Your task to perform on an android device: View the shopping cart on amazon.com. Image 0: 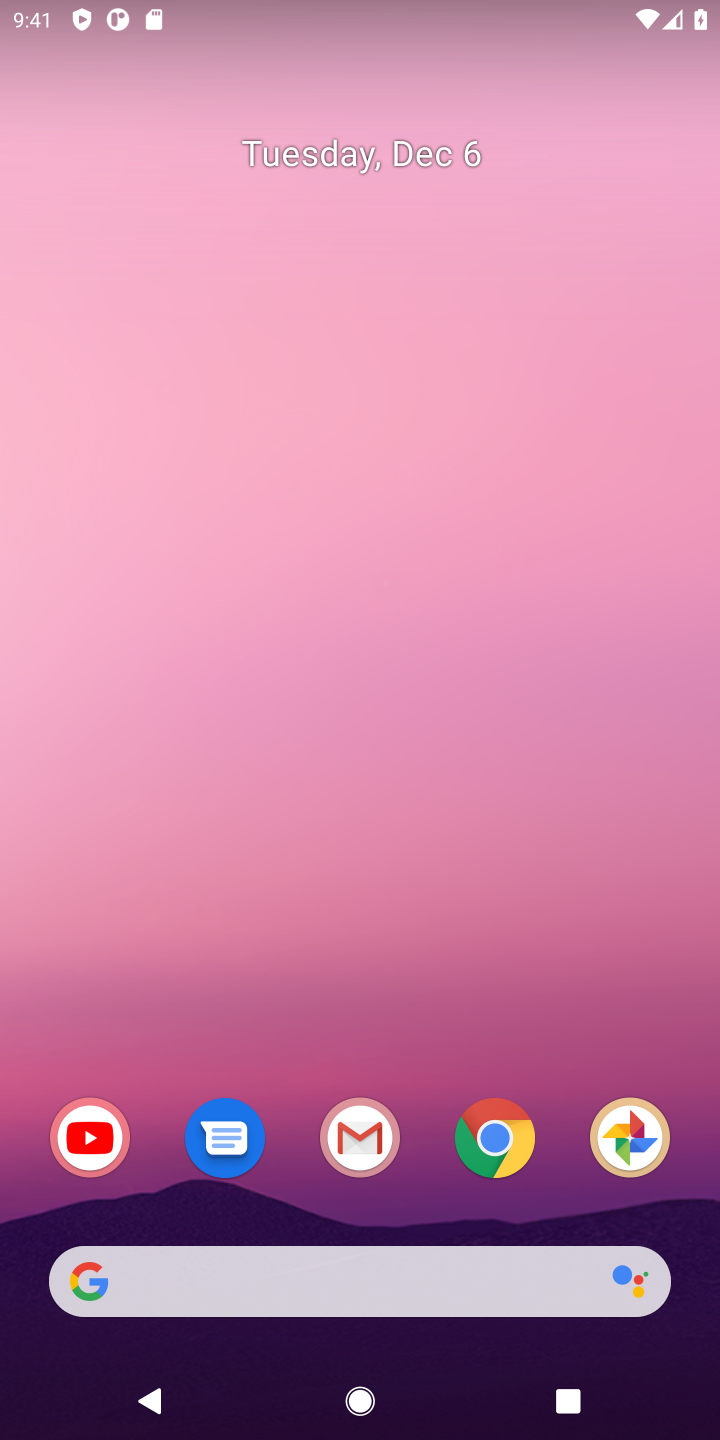
Step 0: click (490, 1142)
Your task to perform on an android device: View the shopping cart on amazon.com. Image 1: 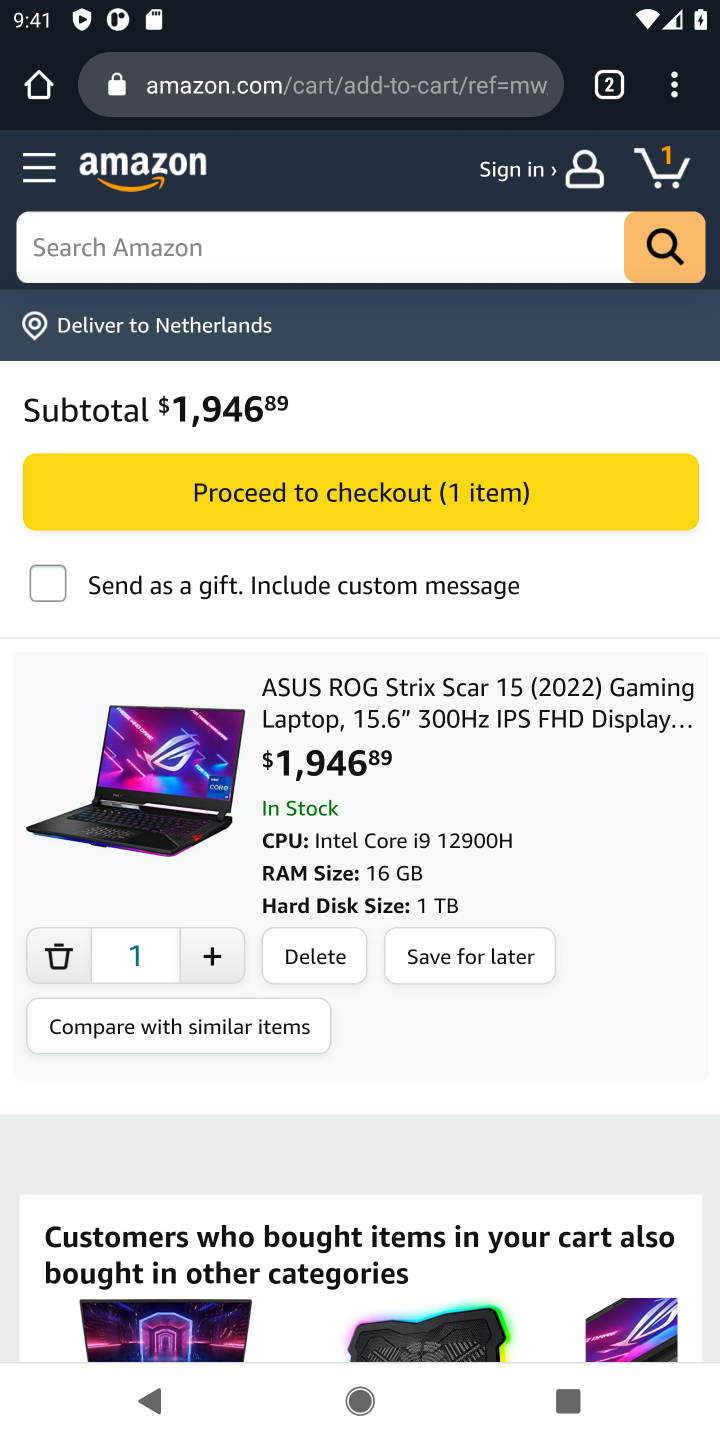
Step 1: click (663, 175)
Your task to perform on an android device: View the shopping cart on amazon.com. Image 2: 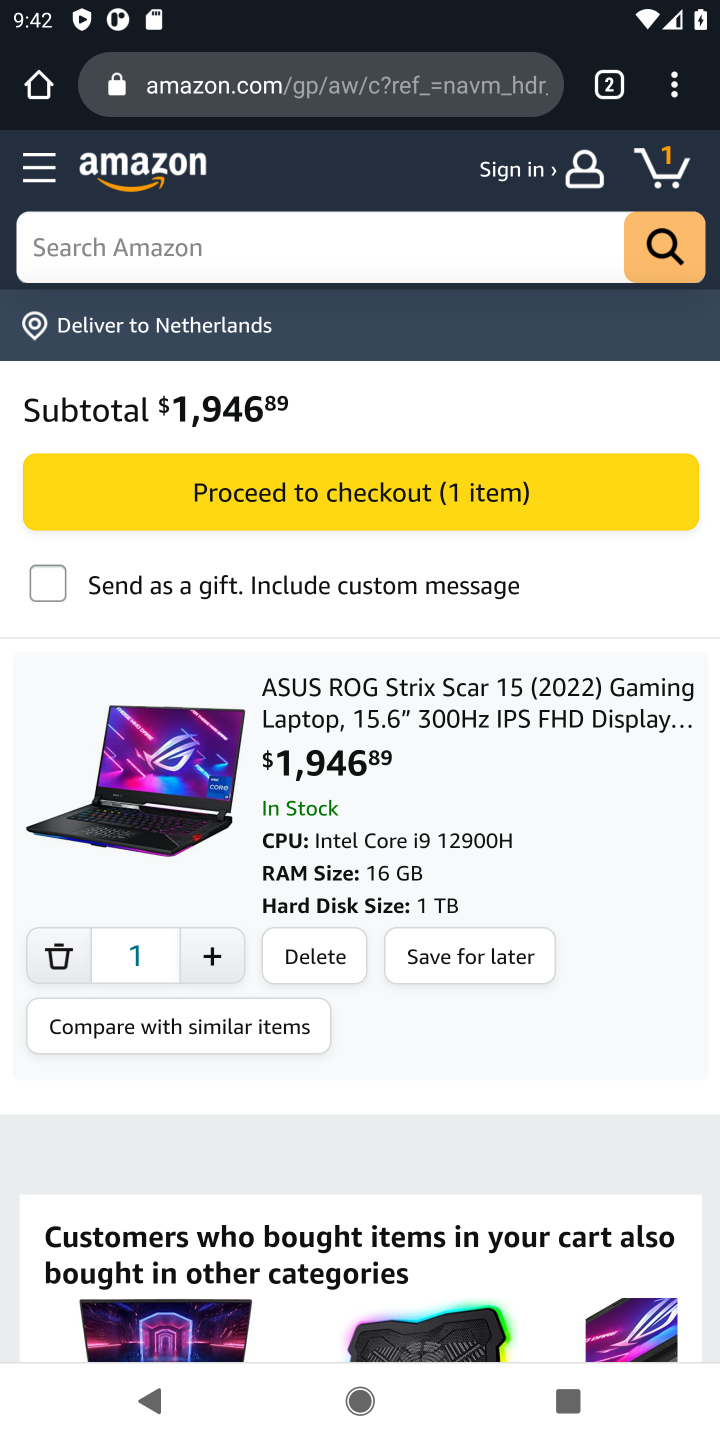
Step 2: task complete